Your task to perform on an android device: clear all cookies in the chrome app Image 0: 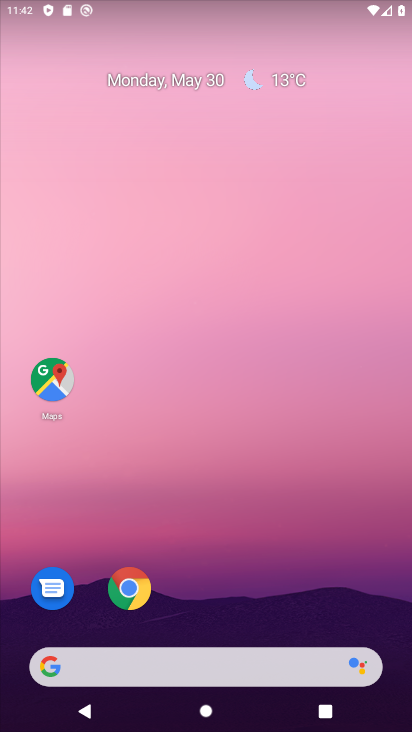
Step 0: click (131, 574)
Your task to perform on an android device: clear all cookies in the chrome app Image 1: 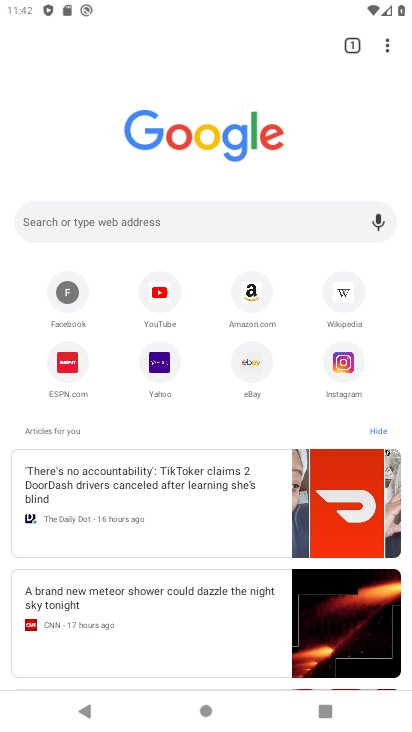
Step 1: click (388, 43)
Your task to perform on an android device: clear all cookies in the chrome app Image 2: 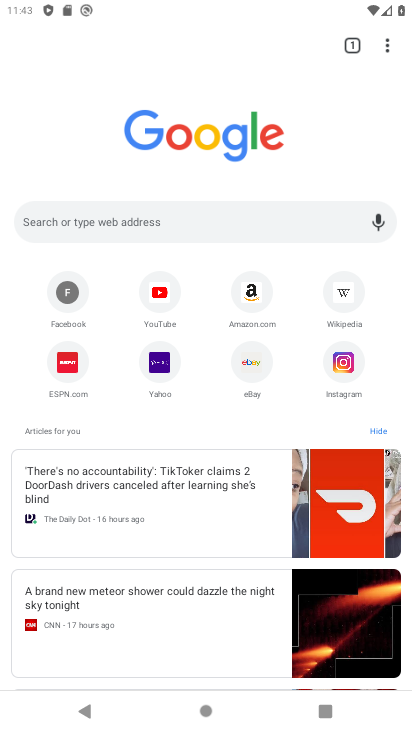
Step 2: click (382, 39)
Your task to perform on an android device: clear all cookies in the chrome app Image 3: 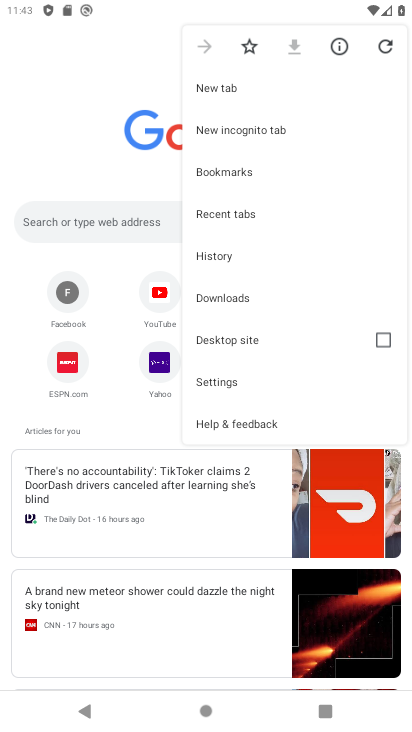
Step 3: click (222, 383)
Your task to perform on an android device: clear all cookies in the chrome app Image 4: 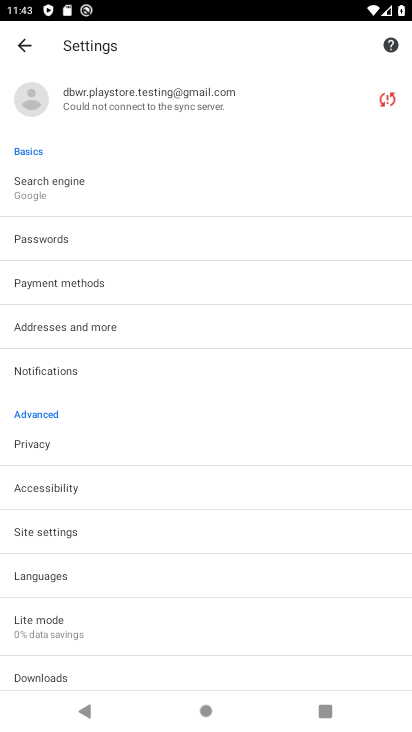
Step 4: click (12, 42)
Your task to perform on an android device: clear all cookies in the chrome app Image 5: 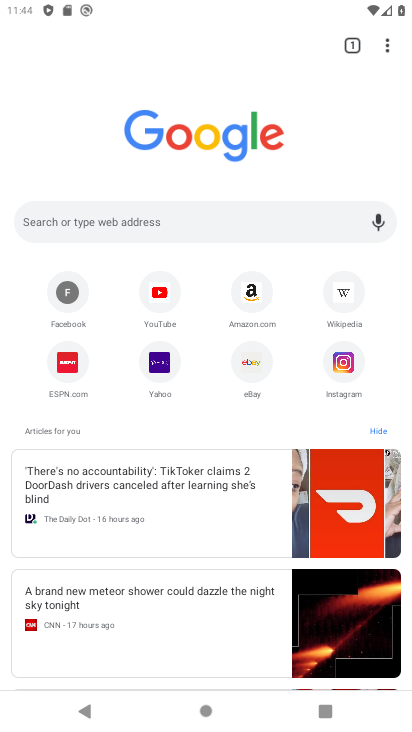
Step 5: click (387, 42)
Your task to perform on an android device: clear all cookies in the chrome app Image 6: 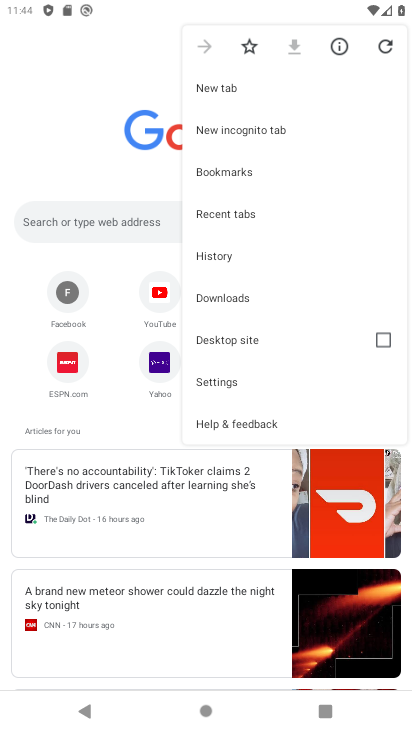
Step 6: click (233, 381)
Your task to perform on an android device: clear all cookies in the chrome app Image 7: 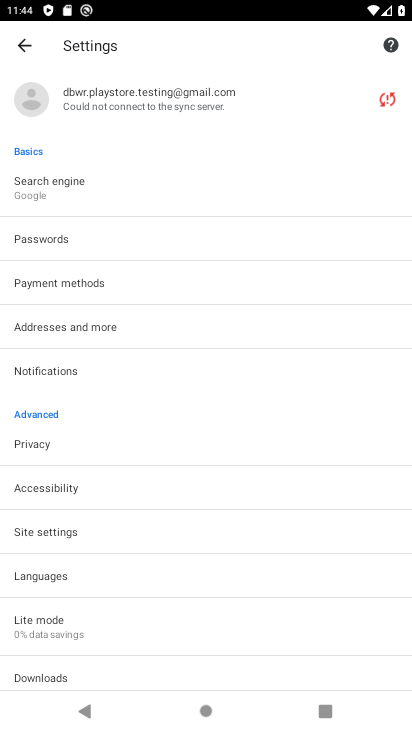
Step 7: click (15, 40)
Your task to perform on an android device: clear all cookies in the chrome app Image 8: 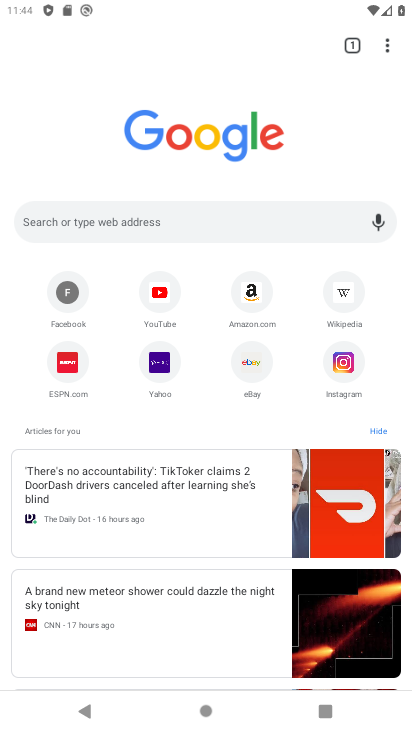
Step 8: click (387, 42)
Your task to perform on an android device: clear all cookies in the chrome app Image 9: 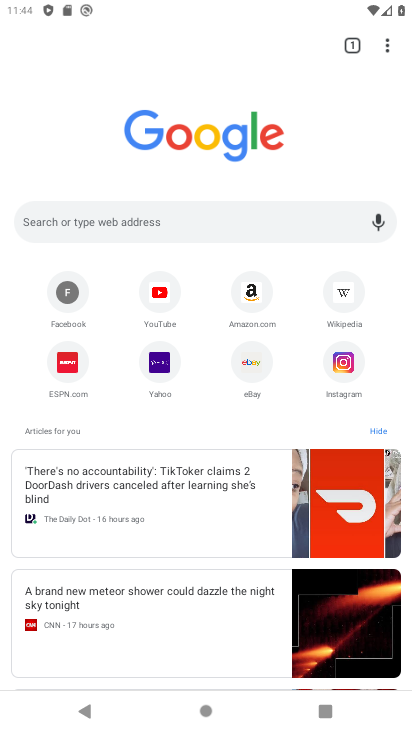
Step 9: click (387, 42)
Your task to perform on an android device: clear all cookies in the chrome app Image 10: 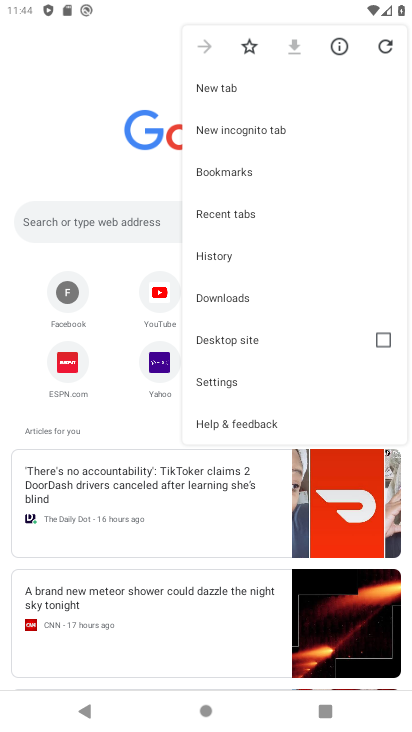
Step 10: click (227, 165)
Your task to perform on an android device: clear all cookies in the chrome app Image 11: 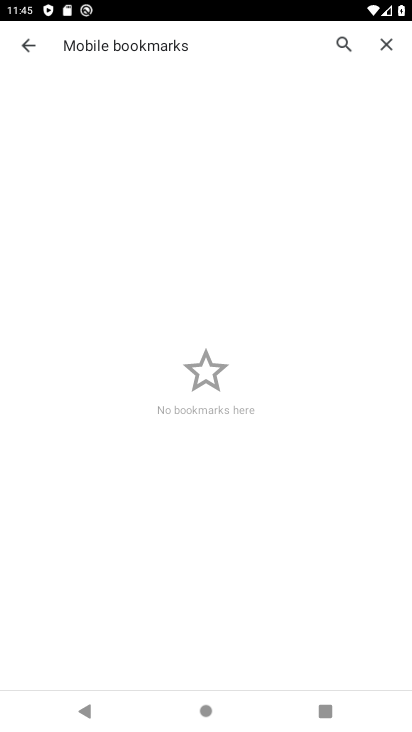
Step 11: task complete